Your task to perform on an android device: Turn on the flashlight Image 0: 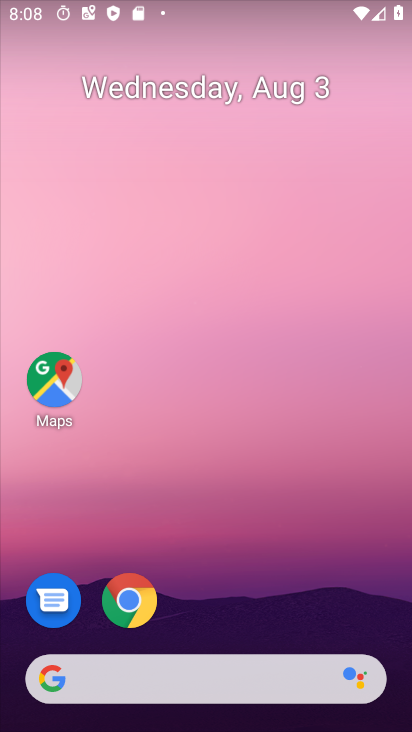
Step 0: drag from (220, 620) to (295, 5)
Your task to perform on an android device: Turn on the flashlight Image 1: 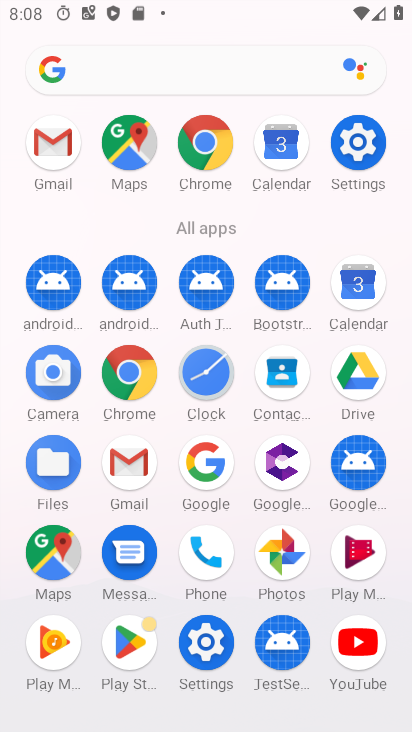
Step 1: click (209, 657)
Your task to perform on an android device: Turn on the flashlight Image 2: 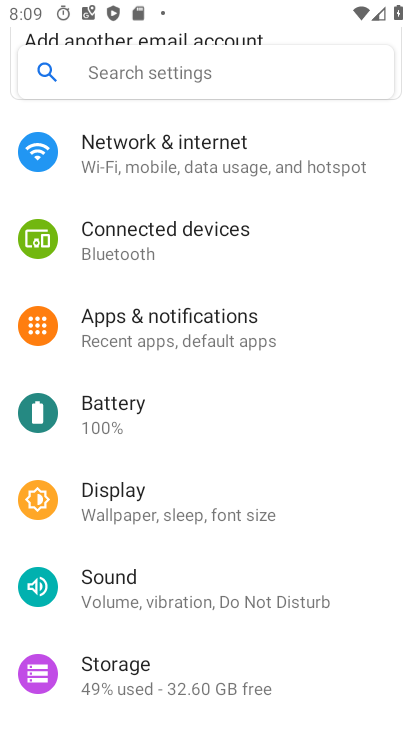
Step 2: click (173, 75)
Your task to perform on an android device: Turn on the flashlight Image 3: 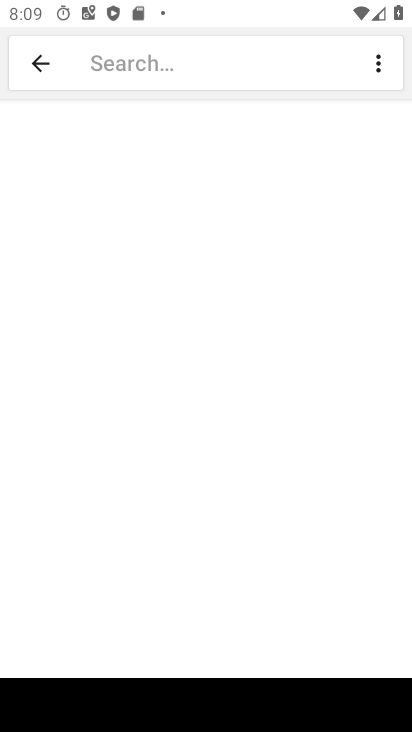
Step 3: type "flashlight"
Your task to perform on an android device: Turn on the flashlight Image 4: 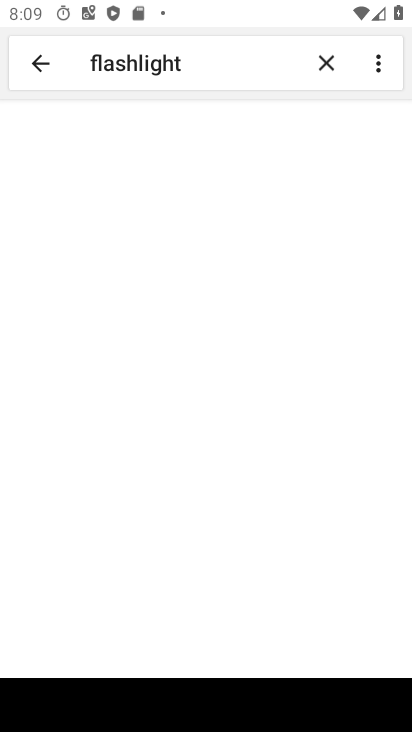
Step 4: click (140, 140)
Your task to perform on an android device: Turn on the flashlight Image 5: 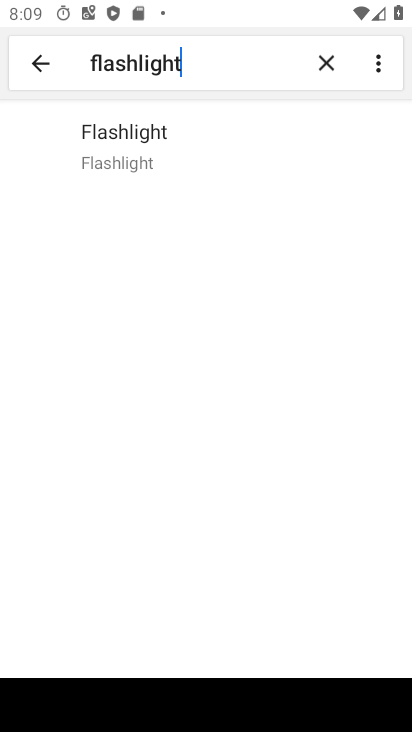
Step 5: click (139, 141)
Your task to perform on an android device: Turn on the flashlight Image 6: 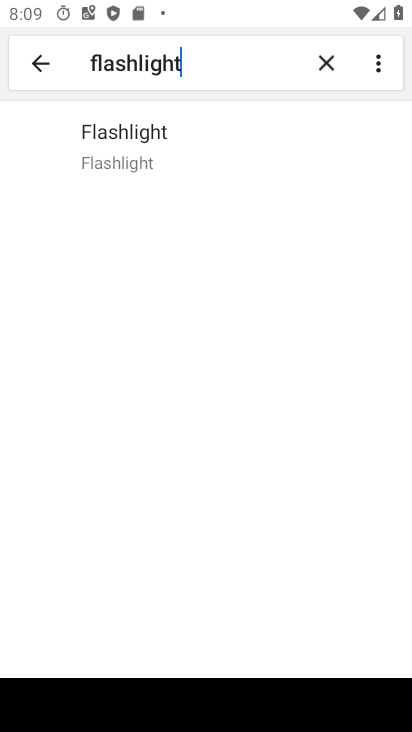
Step 6: task complete